Your task to perform on an android device: Go to accessibility settings Image 0: 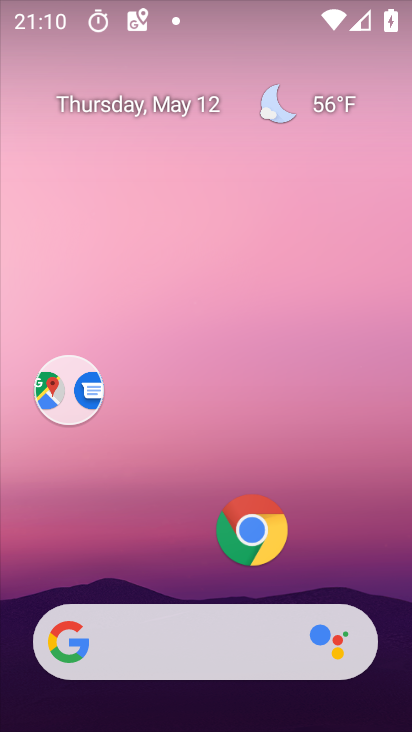
Step 0: drag from (180, 577) to (181, 71)
Your task to perform on an android device: Go to accessibility settings Image 1: 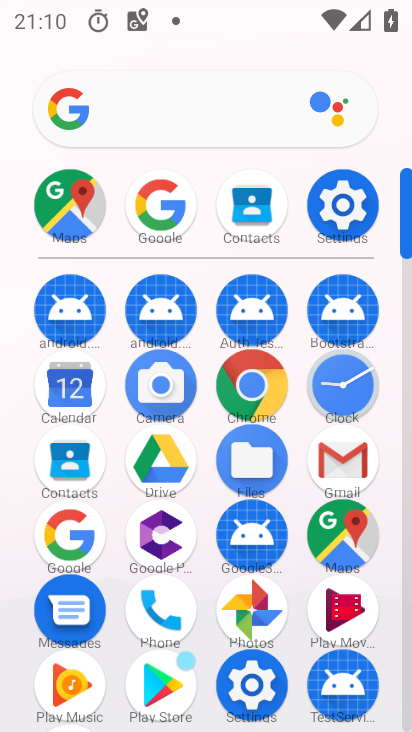
Step 1: click (340, 203)
Your task to perform on an android device: Go to accessibility settings Image 2: 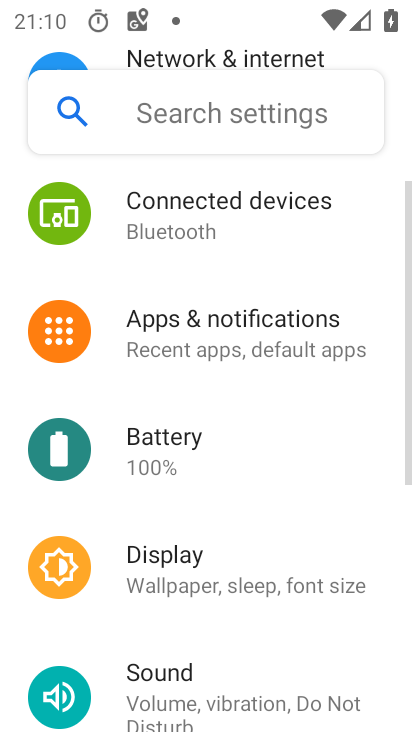
Step 2: drag from (282, 599) to (283, 193)
Your task to perform on an android device: Go to accessibility settings Image 3: 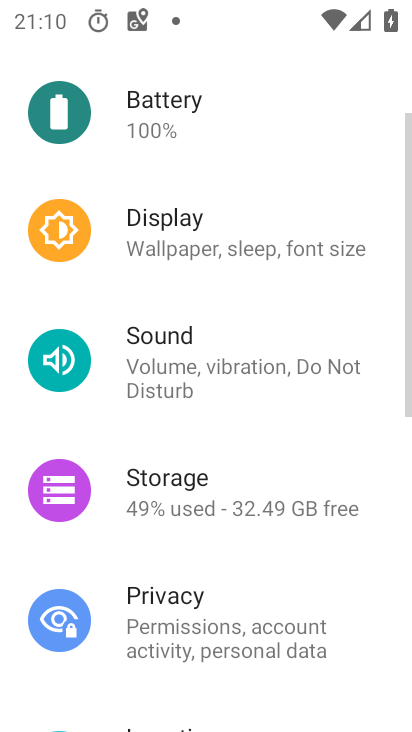
Step 3: drag from (265, 645) to (281, 103)
Your task to perform on an android device: Go to accessibility settings Image 4: 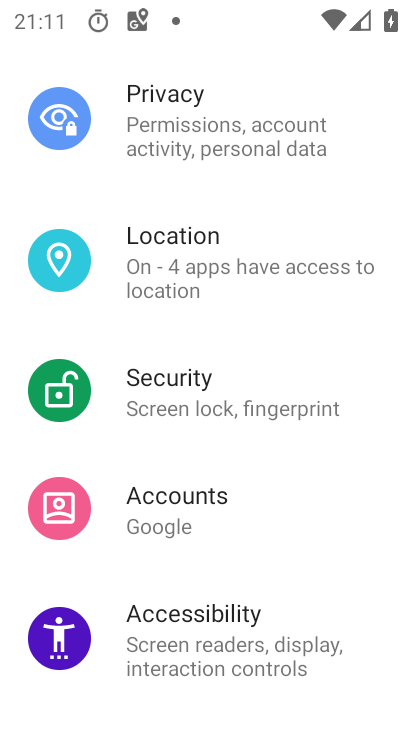
Step 4: click (246, 633)
Your task to perform on an android device: Go to accessibility settings Image 5: 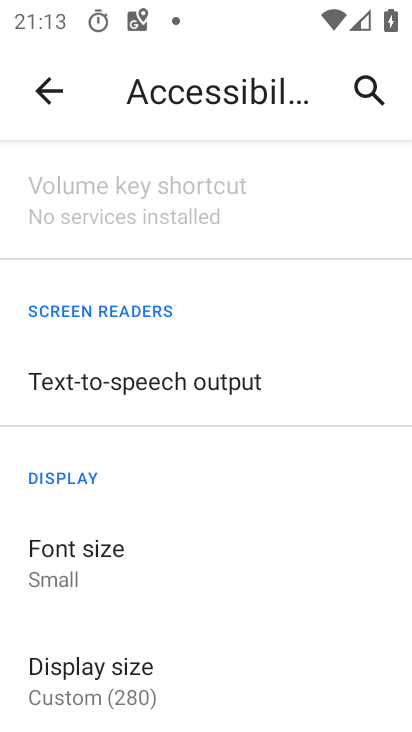
Step 5: task complete